Your task to perform on an android device: What is the news today? Image 0: 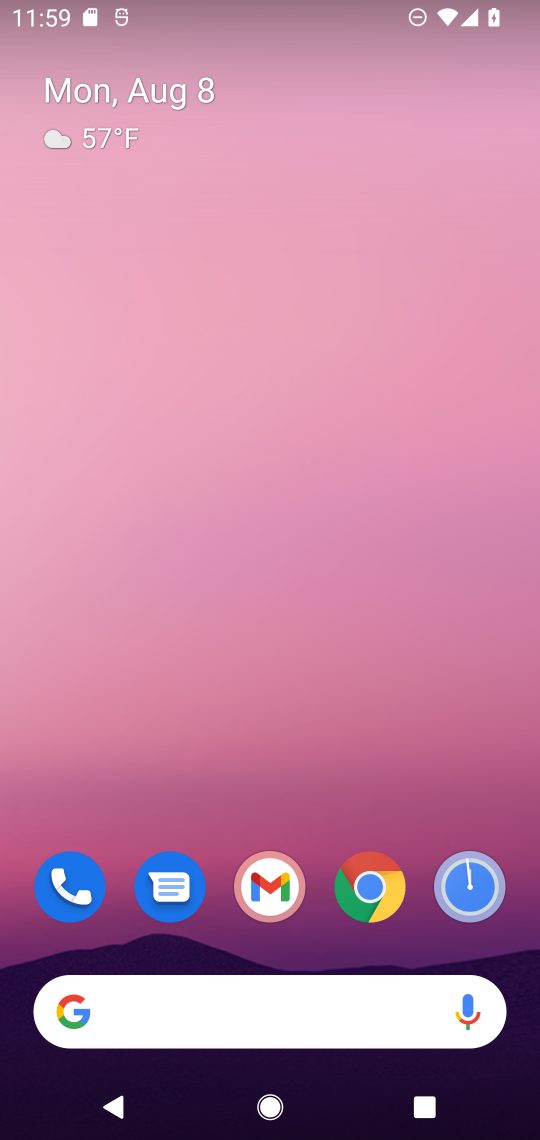
Step 0: drag from (7, 452) to (459, 449)
Your task to perform on an android device: What is the news today? Image 1: 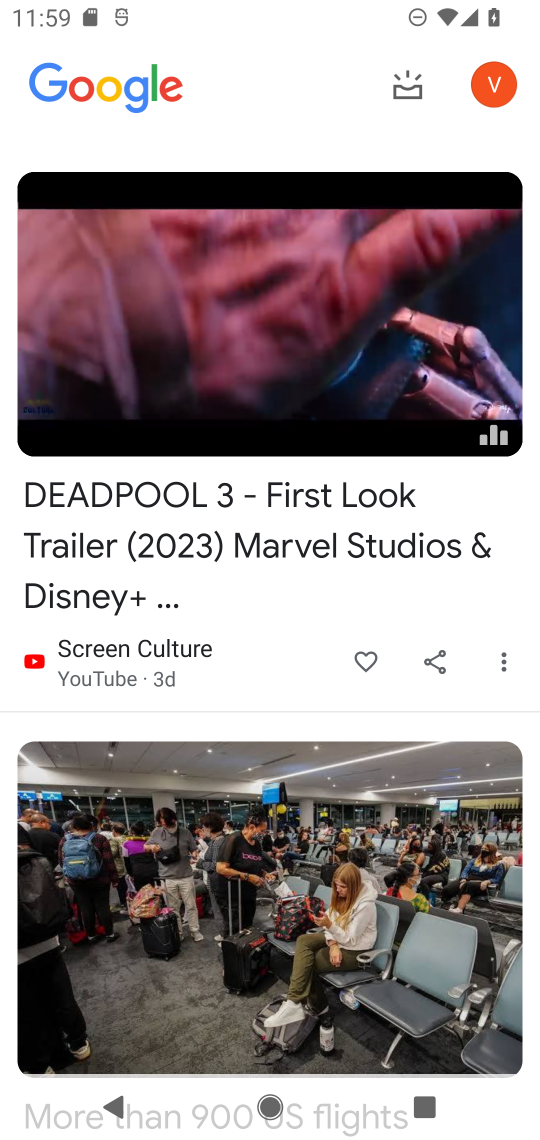
Step 1: task complete